Your task to perform on an android device: Go to calendar. Show me events next week Image 0: 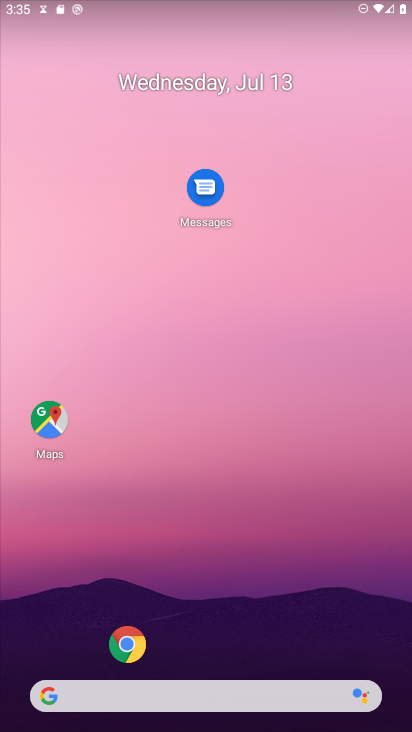
Step 0: drag from (73, 571) to (198, 239)
Your task to perform on an android device: Go to calendar. Show me events next week Image 1: 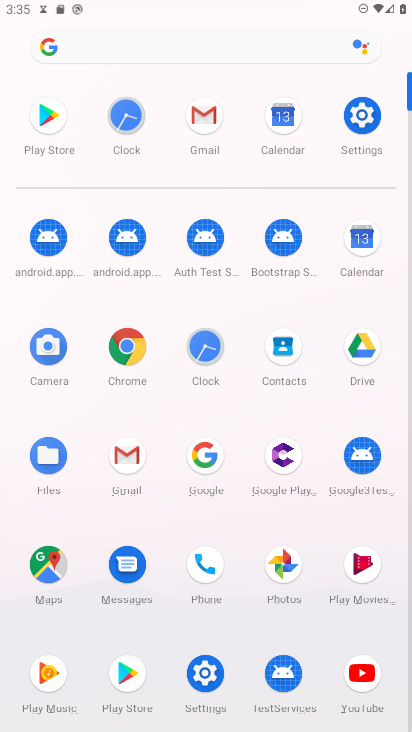
Step 1: click (375, 259)
Your task to perform on an android device: Go to calendar. Show me events next week Image 2: 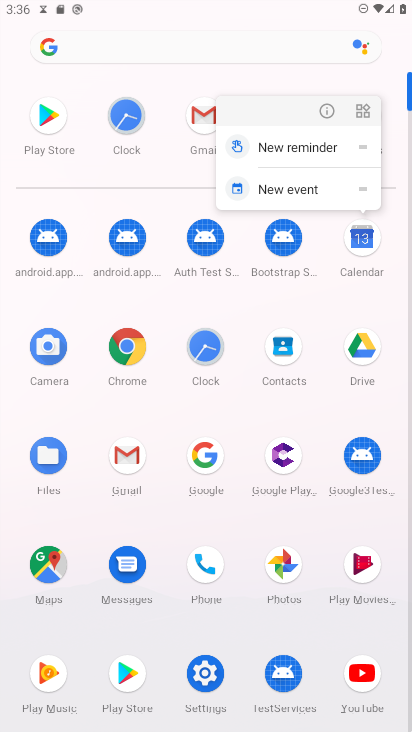
Step 2: click (367, 238)
Your task to perform on an android device: Go to calendar. Show me events next week Image 3: 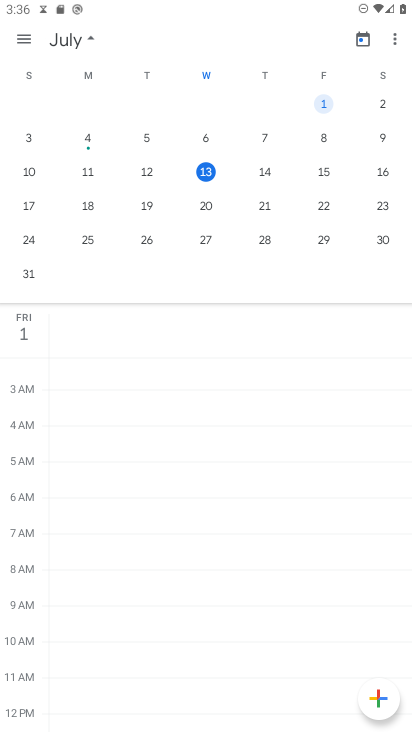
Step 3: click (22, 36)
Your task to perform on an android device: Go to calendar. Show me events next week Image 4: 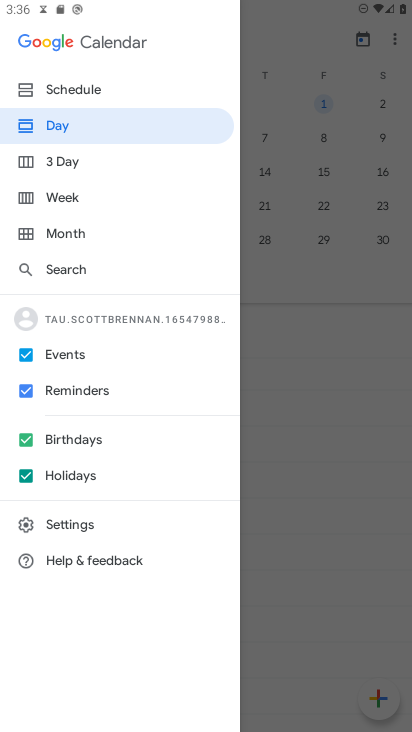
Step 4: task complete